Your task to perform on an android device: Open Google Maps and go to "Timeline" Image 0: 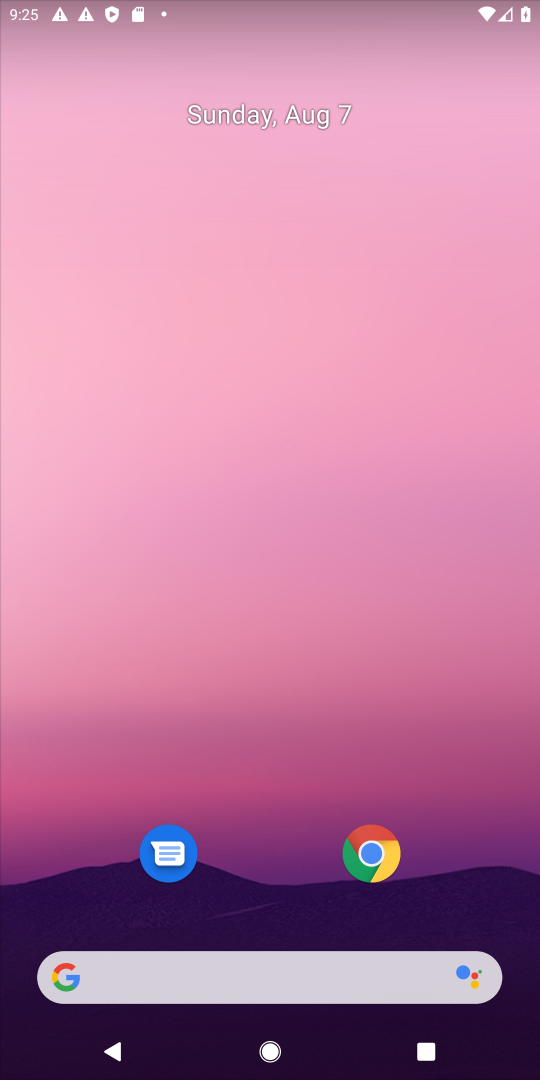
Step 0: press home button
Your task to perform on an android device: Open Google Maps and go to "Timeline" Image 1: 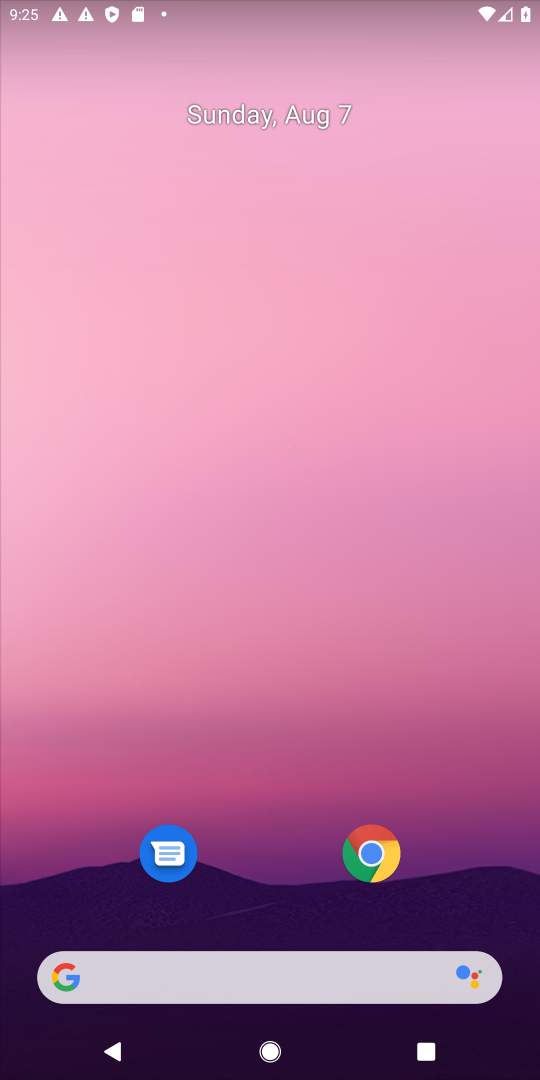
Step 1: drag from (482, 888) to (486, 316)
Your task to perform on an android device: Open Google Maps and go to "Timeline" Image 2: 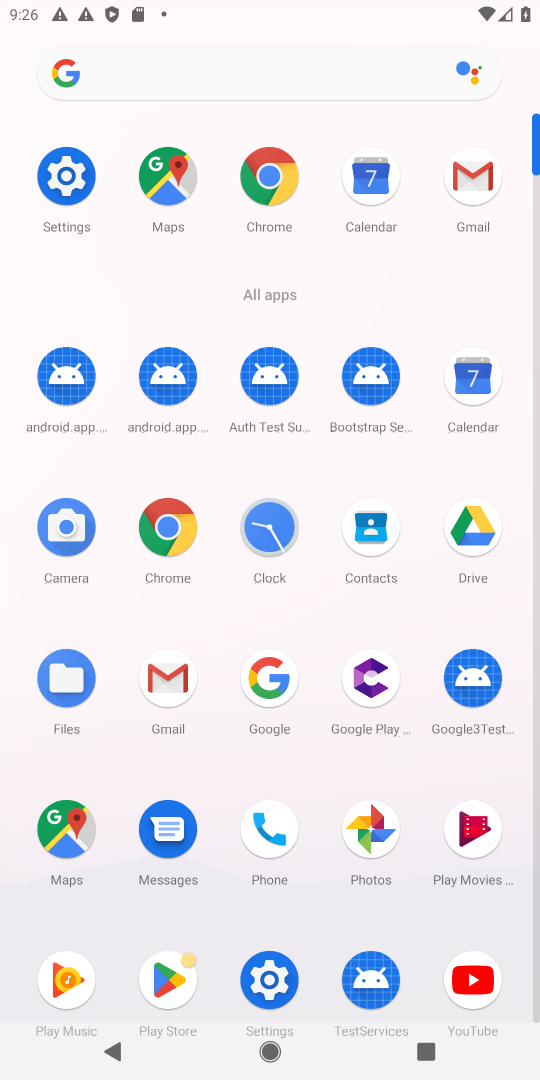
Step 2: click (54, 839)
Your task to perform on an android device: Open Google Maps and go to "Timeline" Image 3: 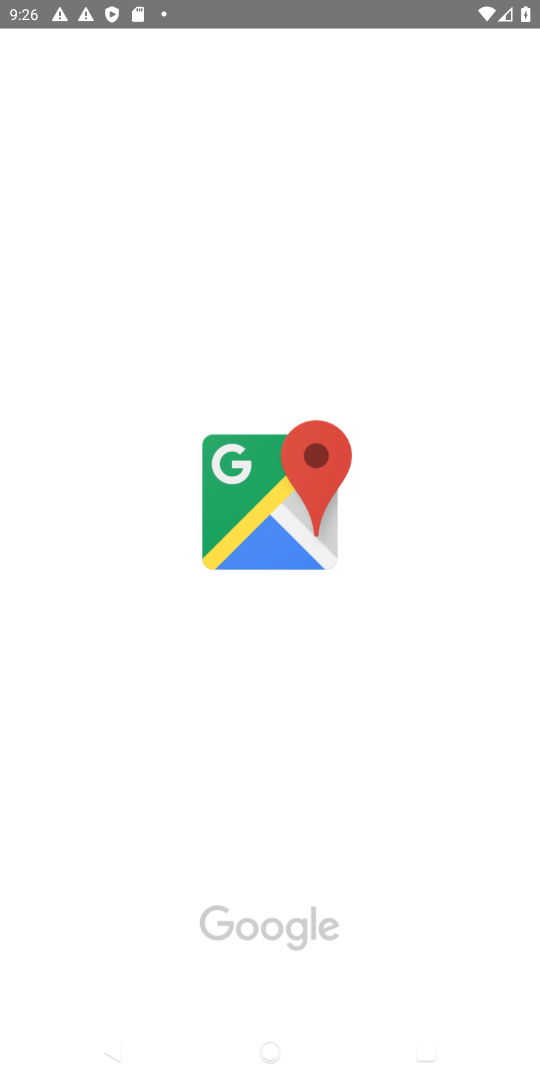
Step 3: task complete